Your task to perform on an android device: toggle location history Image 0: 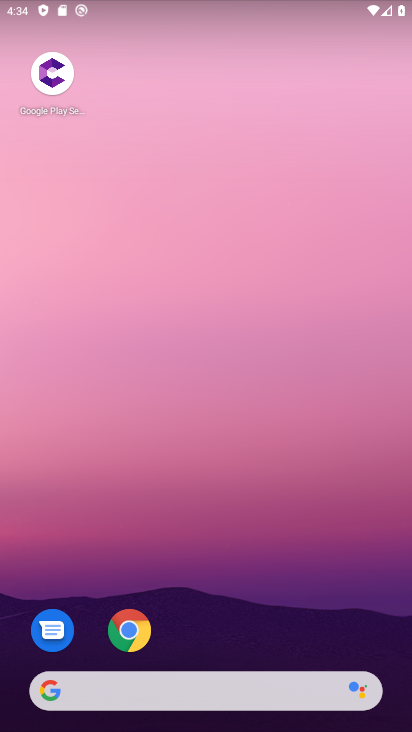
Step 0: drag from (220, 645) to (214, 259)
Your task to perform on an android device: toggle location history Image 1: 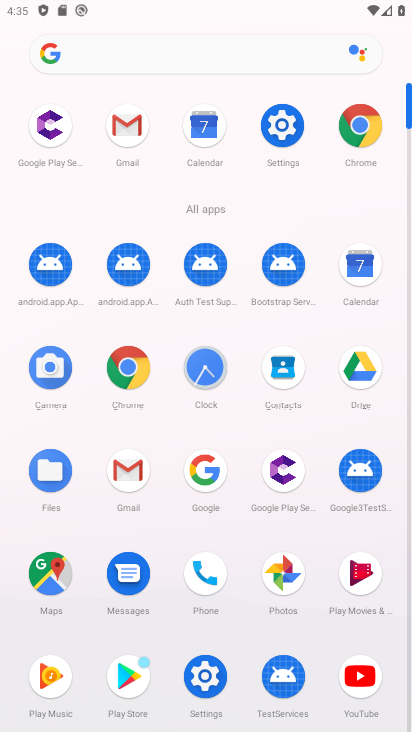
Step 1: click (275, 118)
Your task to perform on an android device: toggle location history Image 2: 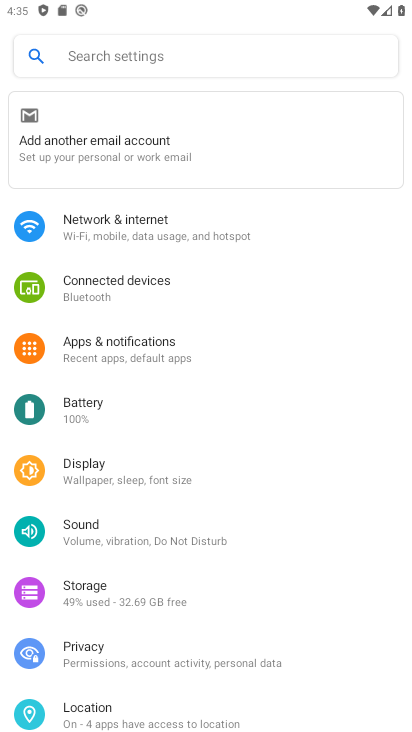
Step 2: drag from (107, 592) to (148, 264)
Your task to perform on an android device: toggle location history Image 3: 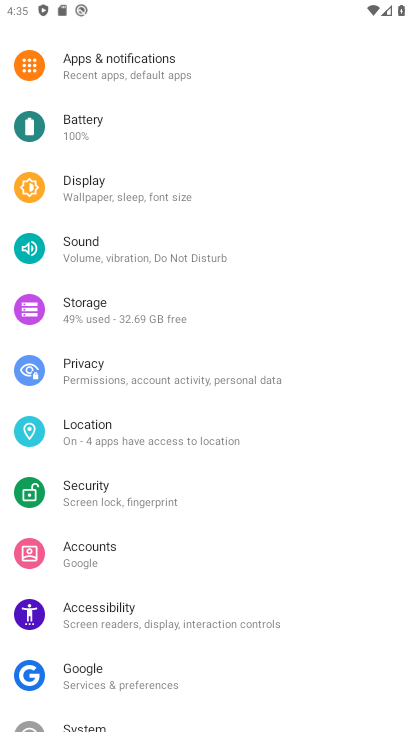
Step 3: click (110, 423)
Your task to perform on an android device: toggle location history Image 4: 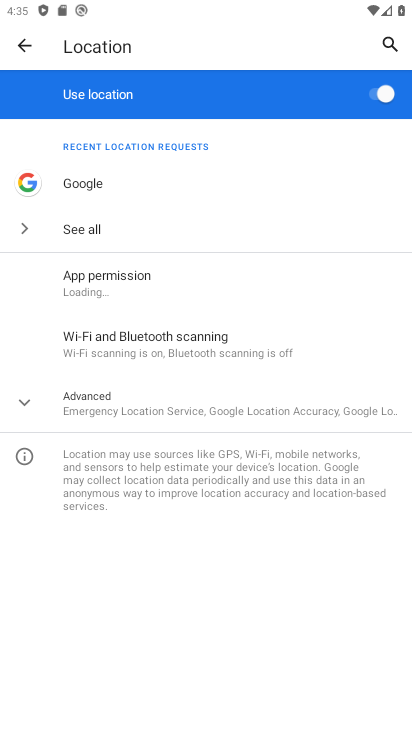
Step 4: click (136, 396)
Your task to perform on an android device: toggle location history Image 5: 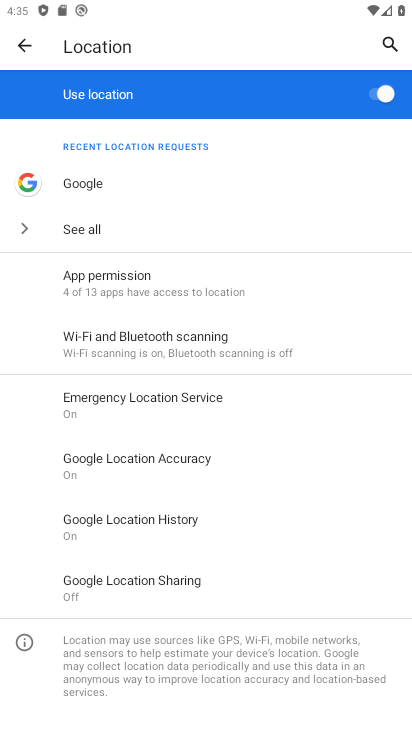
Step 5: click (171, 527)
Your task to perform on an android device: toggle location history Image 6: 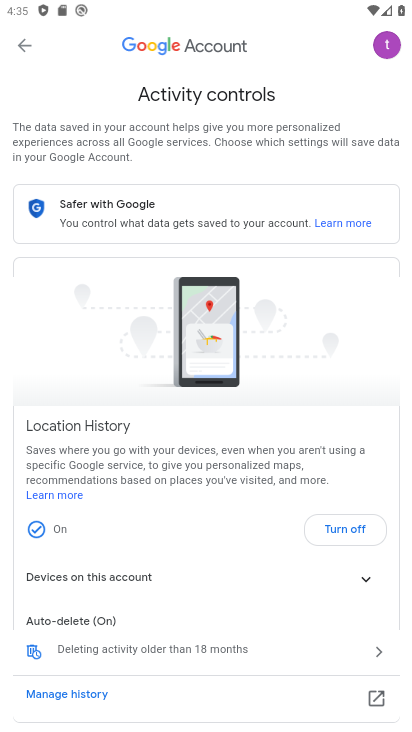
Step 6: click (53, 523)
Your task to perform on an android device: toggle location history Image 7: 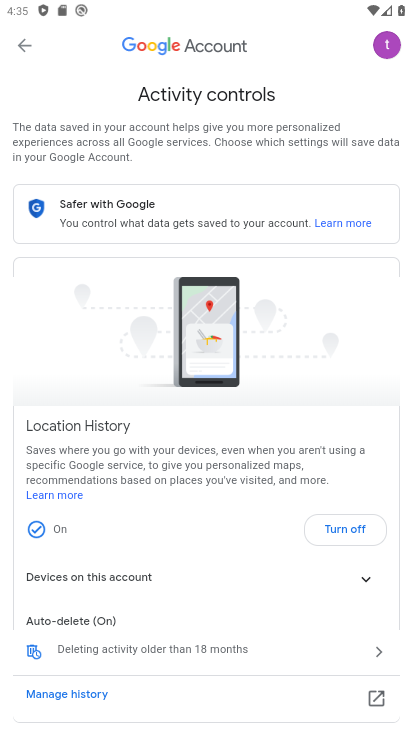
Step 7: click (329, 532)
Your task to perform on an android device: toggle location history Image 8: 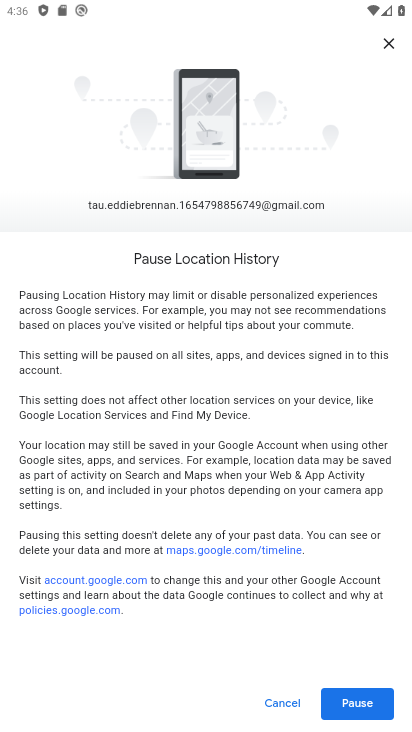
Step 8: click (296, 705)
Your task to perform on an android device: toggle location history Image 9: 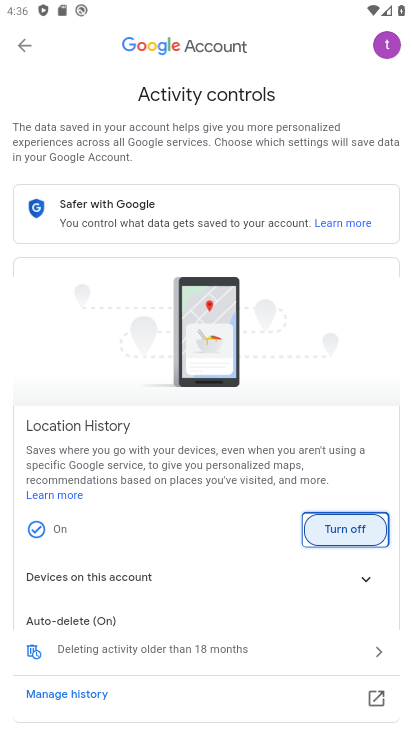
Step 9: task complete